Your task to perform on an android device: Go to Yahoo.com Image 0: 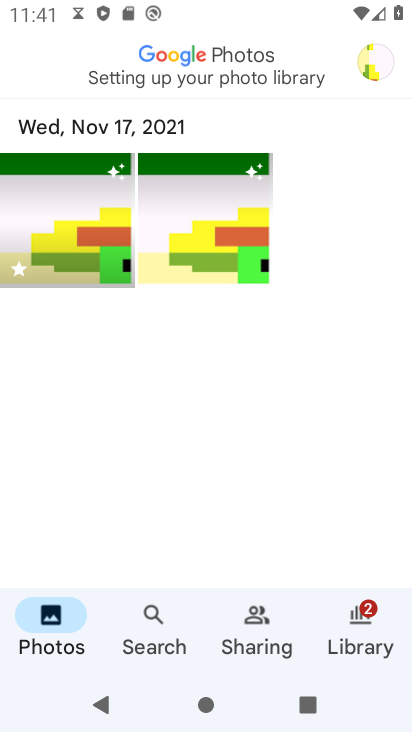
Step 0: press back button
Your task to perform on an android device: Go to Yahoo.com Image 1: 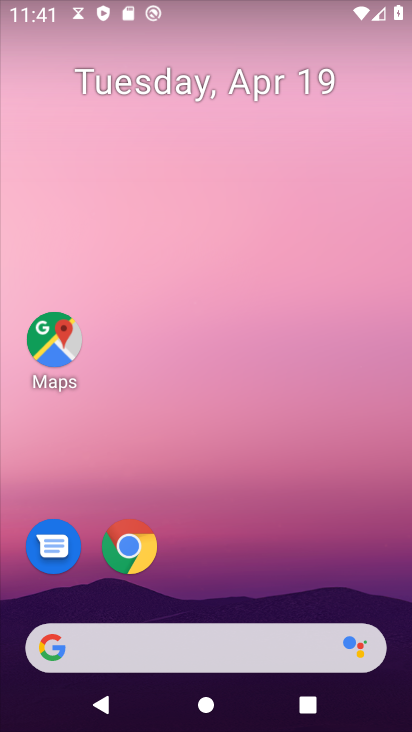
Step 1: drag from (393, 572) to (231, 6)
Your task to perform on an android device: Go to Yahoo.com Image 2: 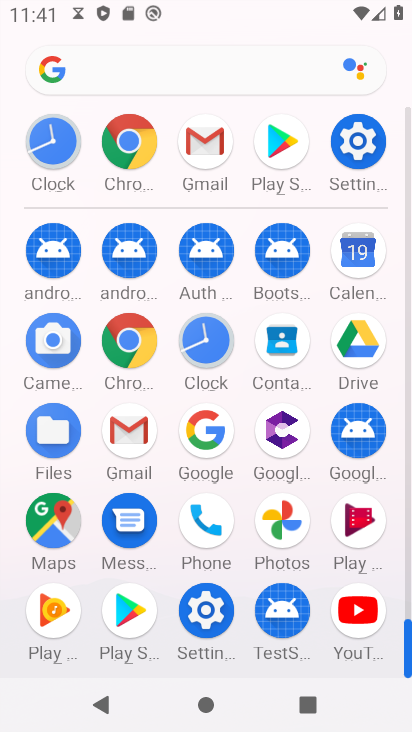
Step 2: click (129, 338)
Your task to perform on an android device: Go to Yahoo.com Image 3: 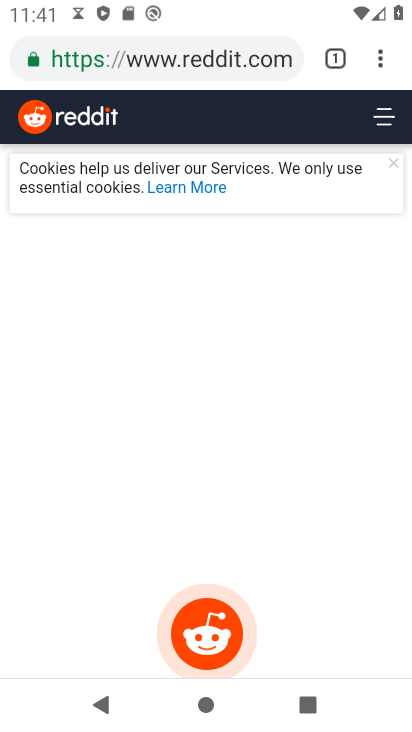
Step 3: click (213, 57)
Your task to perform on an android device: Go to Yahoo.com Image 4: 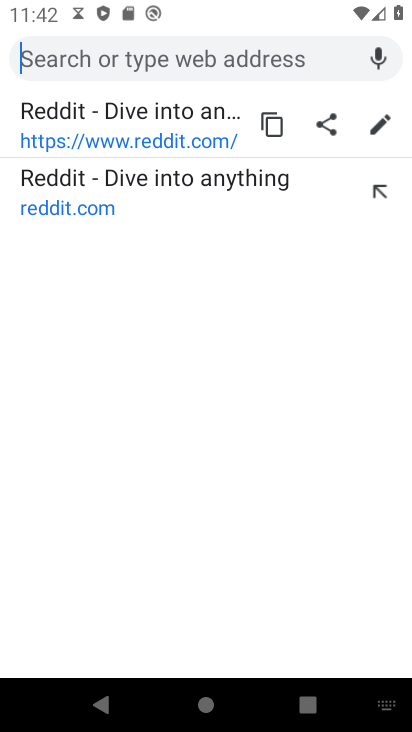
Step 4: click (176, 71)
Your task to perform on an android device: Go to Yahoo.com Image 5: 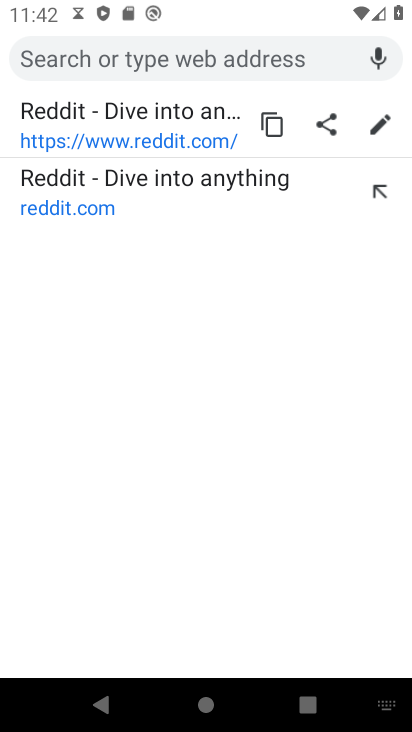
Step 5: type "Yahoo.com"
Your task to perform on an android device: Go to Yahoo.com Image 6: 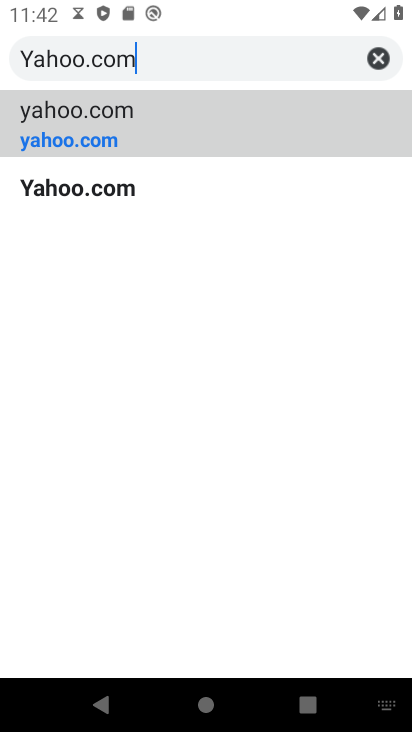
Step 6: type ""
Your task to perform on an android device: Go to Yahoo.com Image 7: 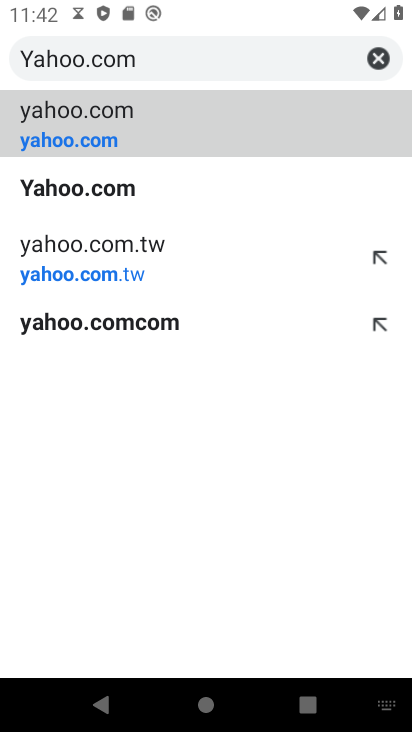
Step 7: click (220, 135)
Your task to perform on an android device: Go to Yahoo.com Image 8: 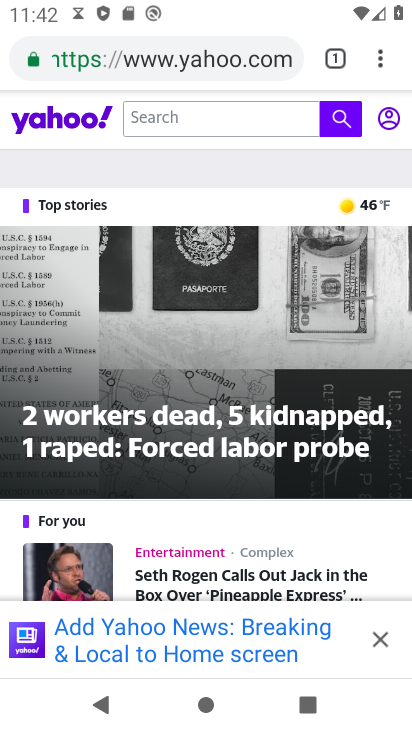
Step 8: task complete